Your task to perform on an android device: turn notification dots off Image 0: 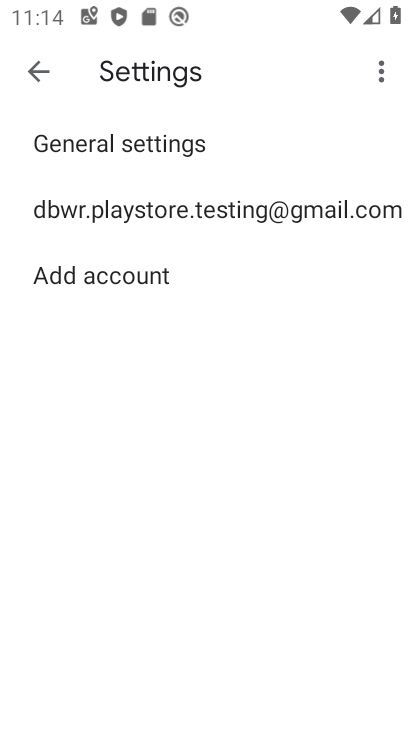
Step 0: press home button
Your task to perform on an android device: turn notification dots off Image 1: 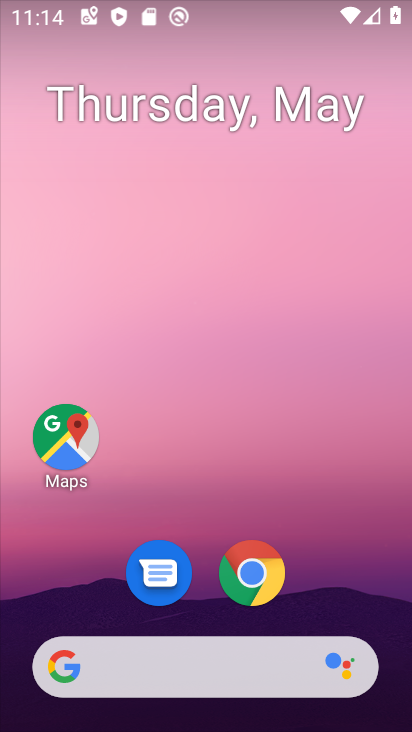
Step 1: drag from (345, 545) to (303, 249)
Your task to perform on an android device: turn notification dots off Image 2: 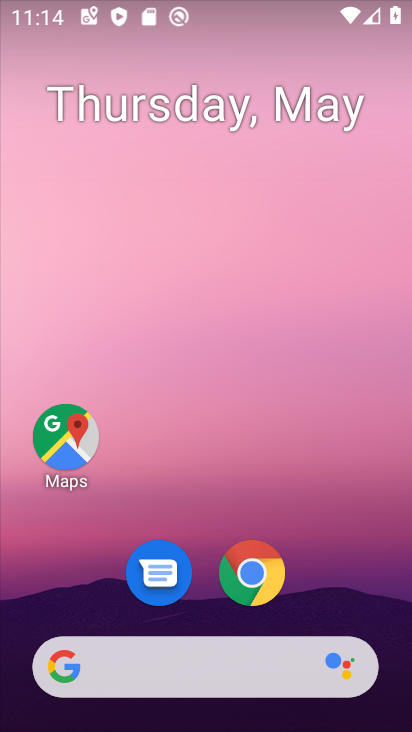
Step 2: drag from (326, 593) to (267, 234)
Your task to perform on an android device: turn notification dots off Image 3: 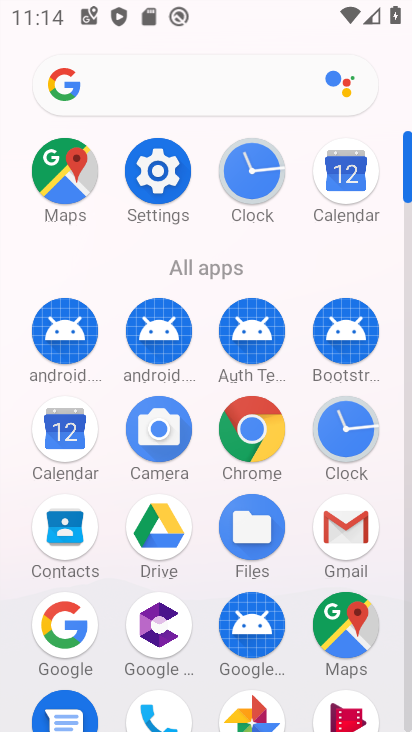
Step 3: drag from (203, 298) to (182, 97)
Your task to perform on an android device: turn notification dots off Image 4: 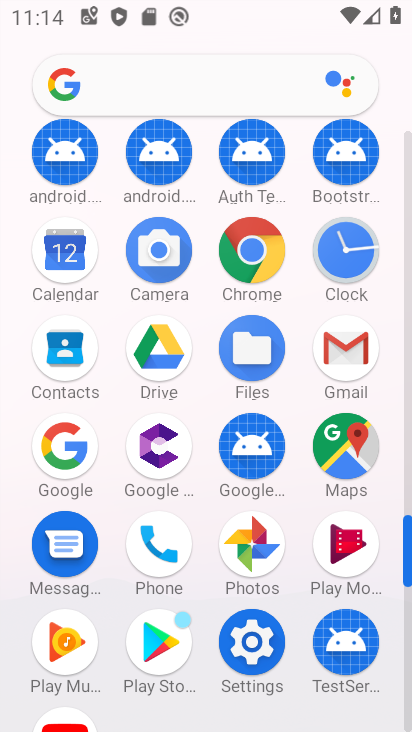
Step 4: click (255, 649)
Your task to perform on an android device: turn notification dots off Image 5: 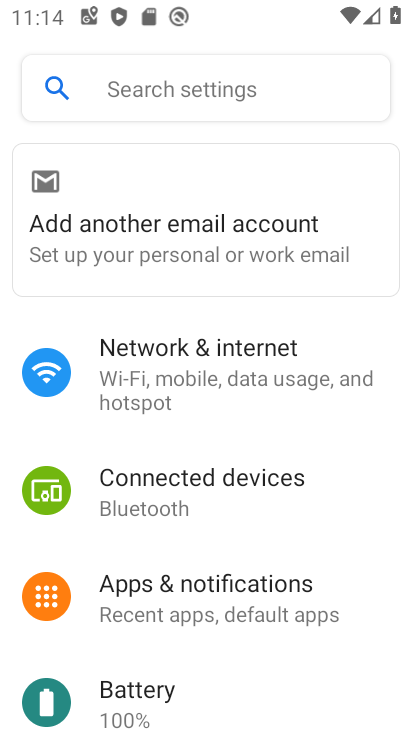
Step 5: click (228, 596)
Your task to perform on an android device: turn notification dots off Image 6: 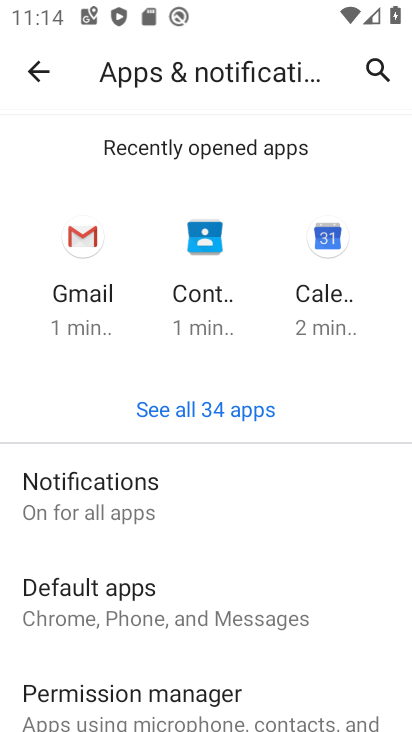
Step 6: drag from (276, 593) to (232, 392)
Your task to perform on an android device: turn notification dots off Image 7: 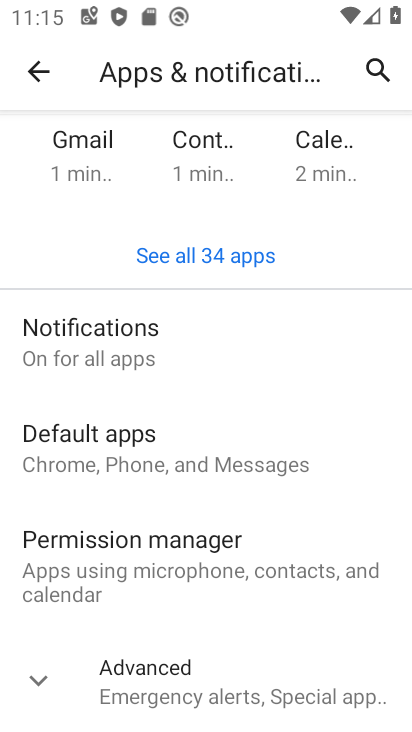
Step 7: click (173, 677)
Your task to perform on an android device: turn notification dots off Image 8: 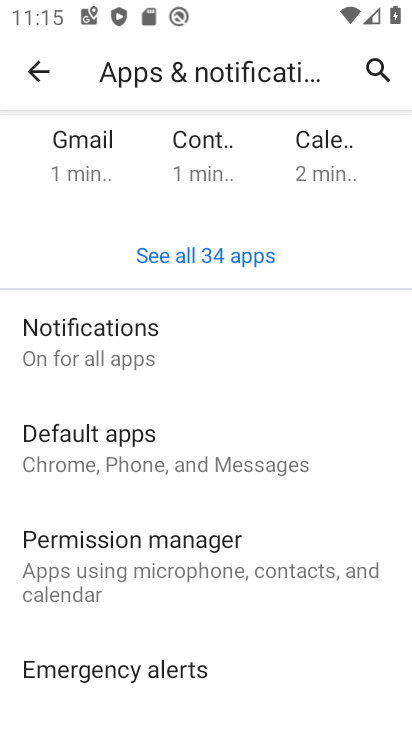
Step 8: drag from (188, 643) to (164, 491)
Your task to perform on an android device: turn notification dots off Image 9: 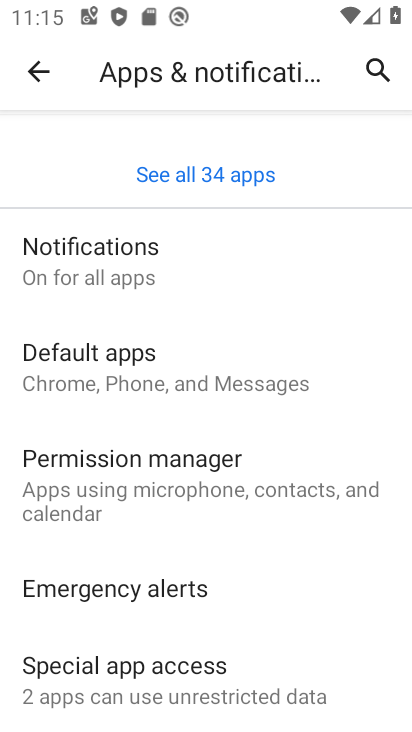
Step 9: click (152, 255)
Your task to perform on an android device: turn notification dots off Image 10: 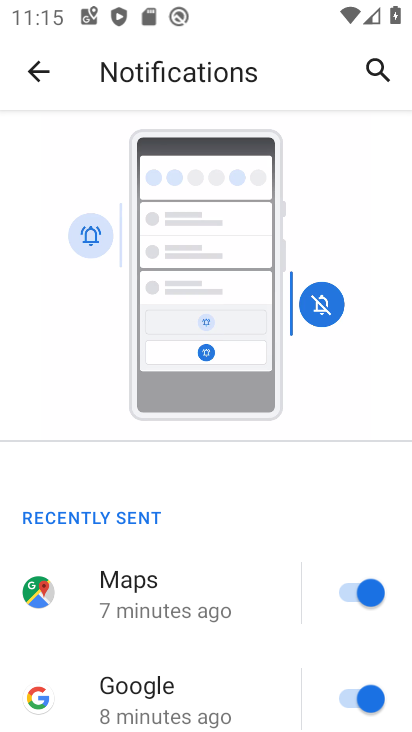
Step 10: drag from (279, 582) to (239, 309)
Your task to perform on an android device: turn notification dots off Image 11: 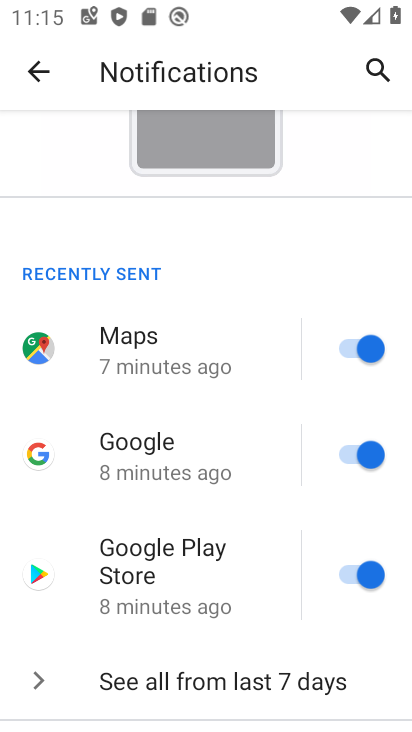
Step 11: drag from (276, 611) to (223, 268)
Your task to perform on an android device: turn notification dots off Image 12: 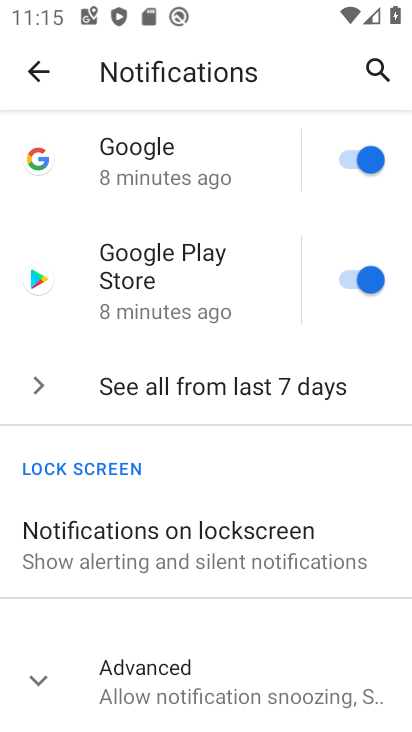
Step 12: drag from (262, 630) to (222, 334)
Your task to perform on an android device: turn notification dots off Image 13: 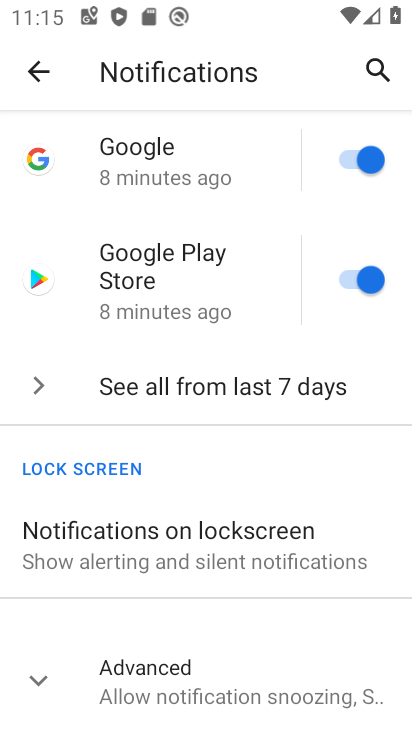
Step 13: click (245, 661)
Your task to perform on an android device: turn notification dots off Image 14: 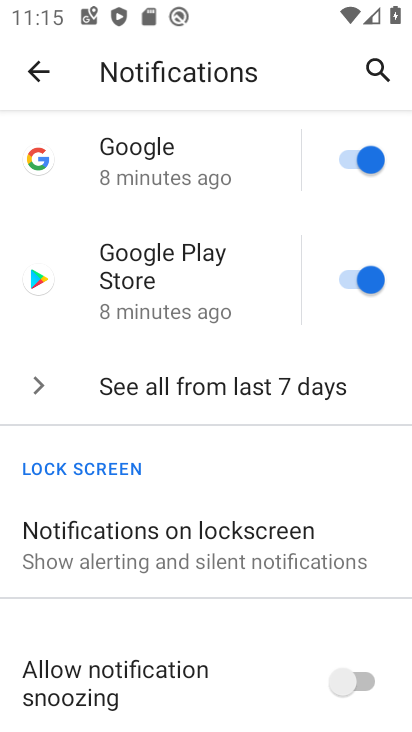
Step 14: drag from (201, 625) to (141, 377)
Your task to perform on an android device: turn notification dots off Image 15: 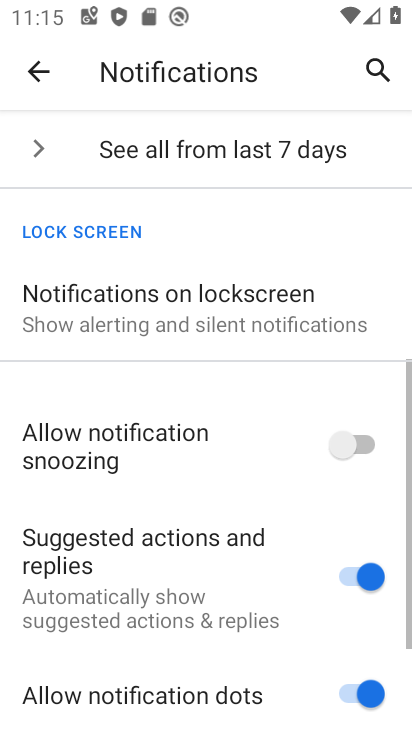
Step 15: click (139, 377)
Your task to perform on an android device: turn notification dots off Image 16: 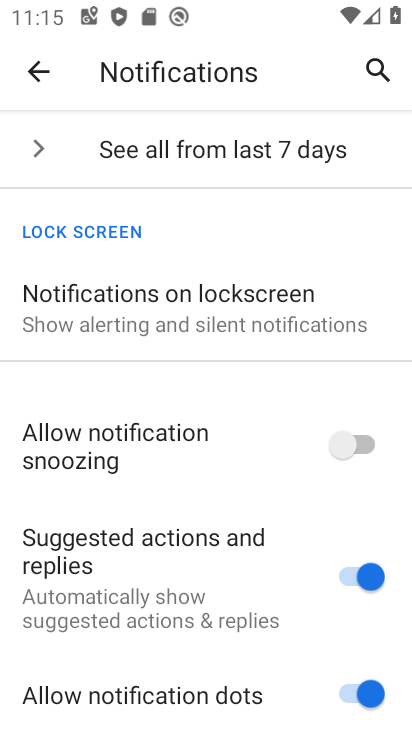
Step 16: click (350, 698)
Your task to perform on an android device: turn notification dots off Image 17: 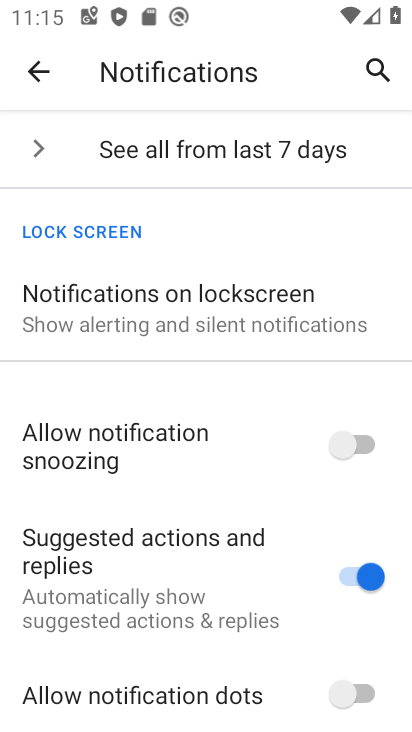
Step 17: task complete